Your task to perform on an android device: Open Google Image 0: 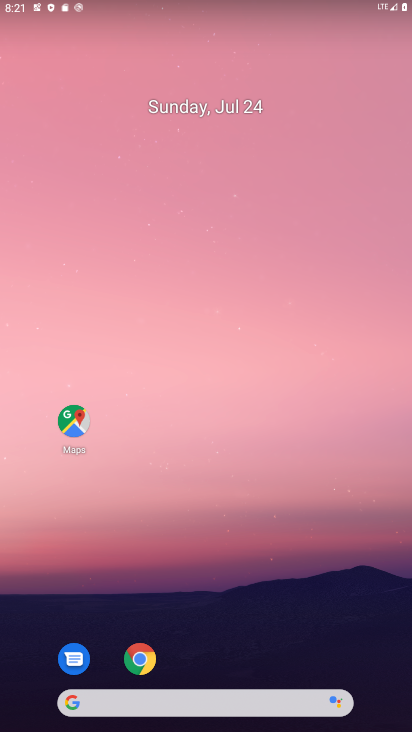
Step 0: drag from (208, 654) to (208, 236)
Your task to perform on an android device: Open Google Image 1: 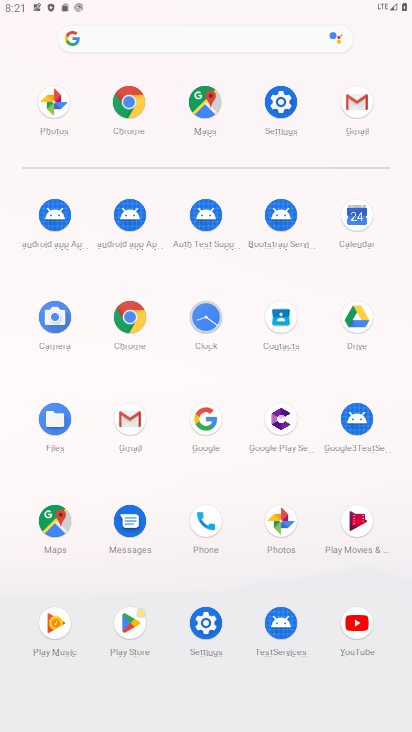
Step 1: click (205, 416)
Your task to perform on an android device: Open Google Image 2: 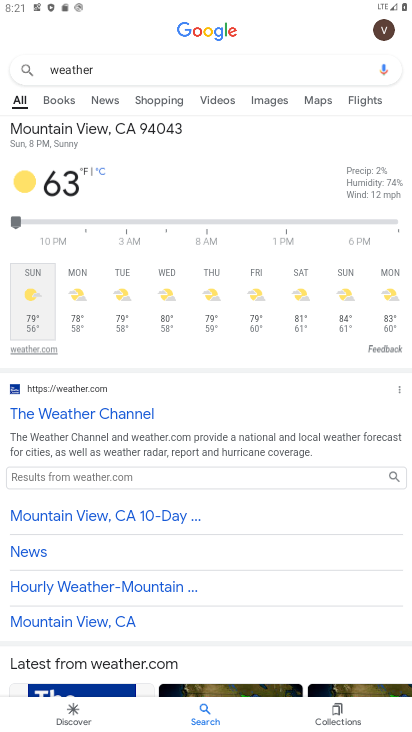
Step 2: task complete